Your task to perform on an android device: open chrome and create a bookmark for the current page Image 0: 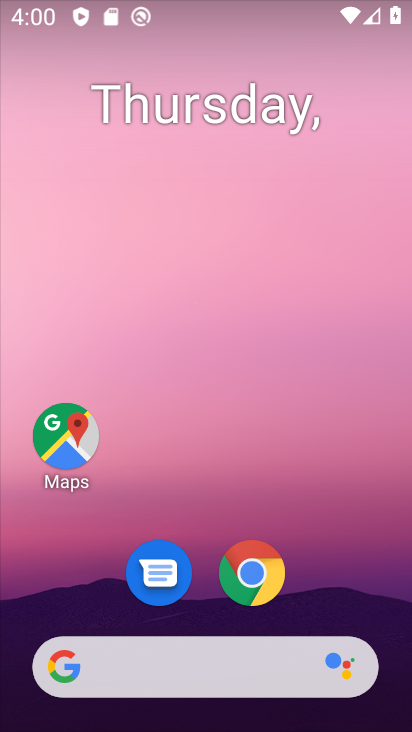
Step 0: click (254, 573)
Your task to perform on an android device: open chrome and create a bookmark for the current page Image 1: 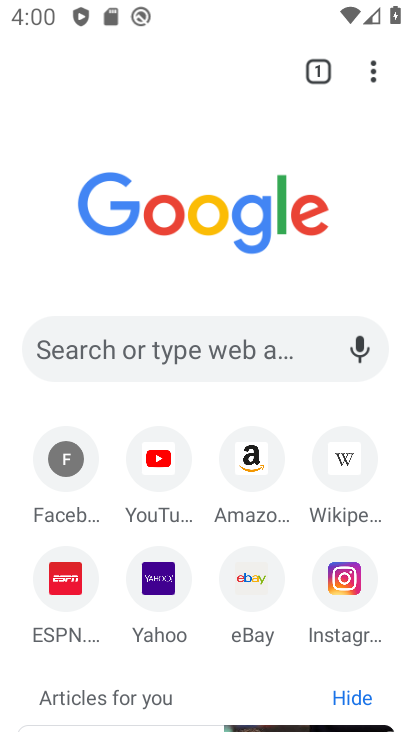
Step 1: click (374, 77)
Your task to perform on an android device: open chrome and create a bookmark for the current page Image 2: 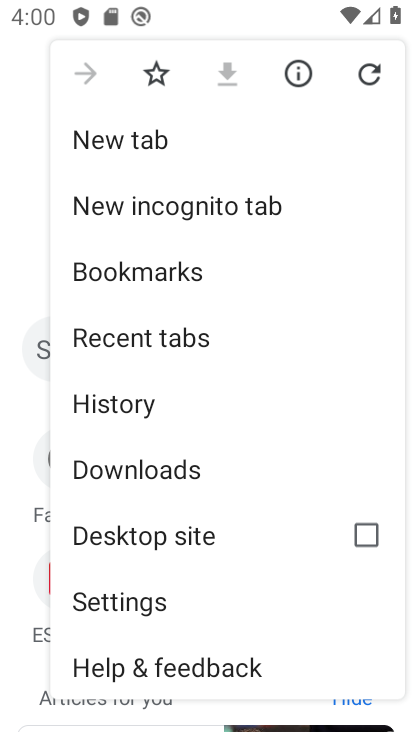
Step 2: click (148, 72)
Your task to perform on an android device: open chrome and create a bookmark for the current page Image 3: 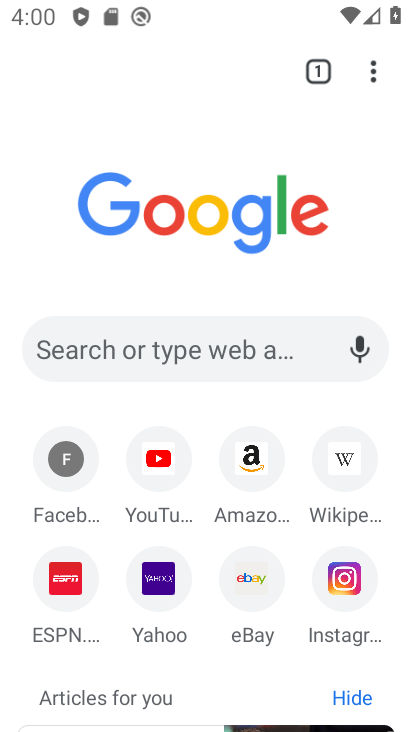
Step 3: task complete